Your task to perform on an android device: What's the weather? Image 0: 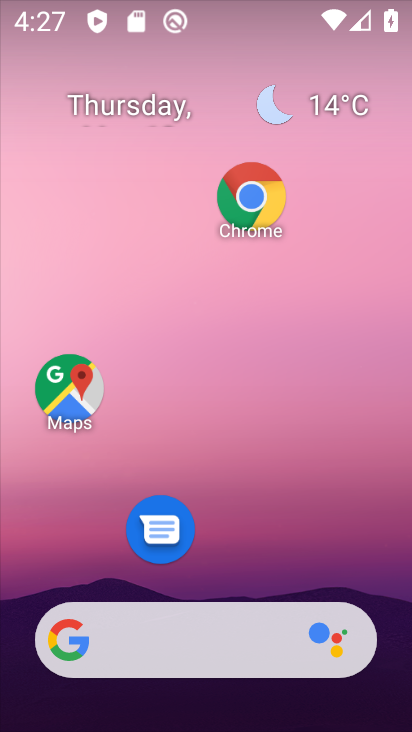
Step 0: drag from (227, 573) to (222, 129)
Your task to perform on an android device: What's the weather? Image 1: 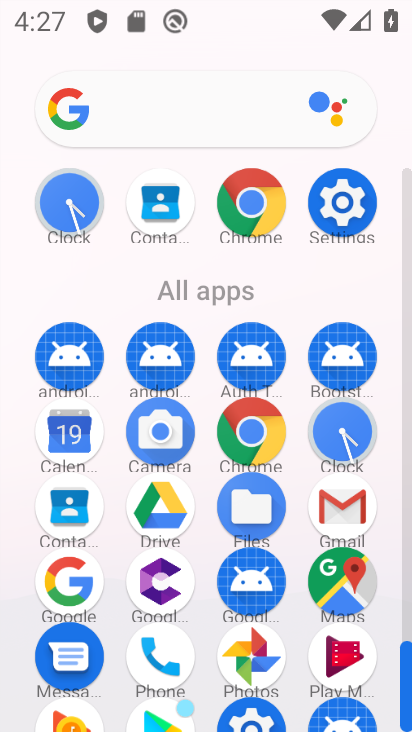
Step 1: press back button
Your task to perform on an android device: What's the weather? Image 2: 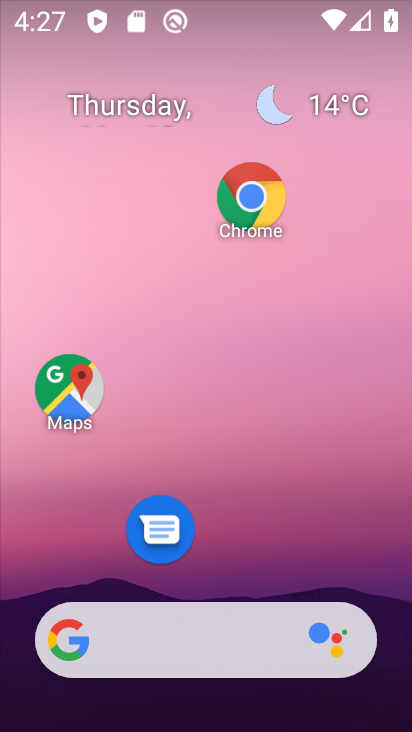
Step 2: click (316, 97)
Your task to perform on an android device: What's the weather? Image 3: 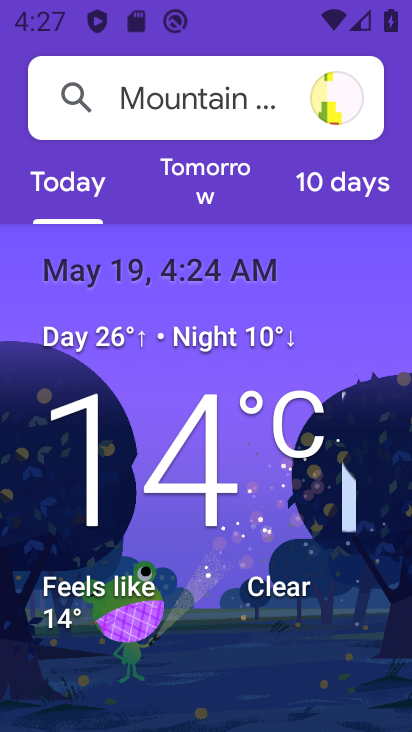
Step 3: task complete